Your task to perform on an android device: allow notifications from all sites in the chrome app Image 0: 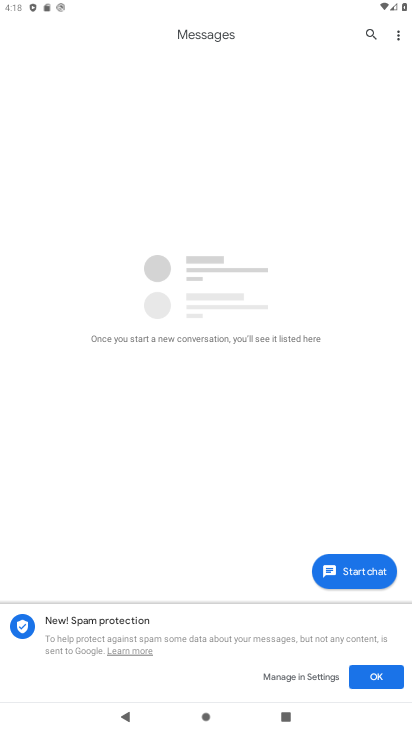
Step 0: press home button
Your task to perform on an android device: allow notifications from all sites in the chrome app Image 1: 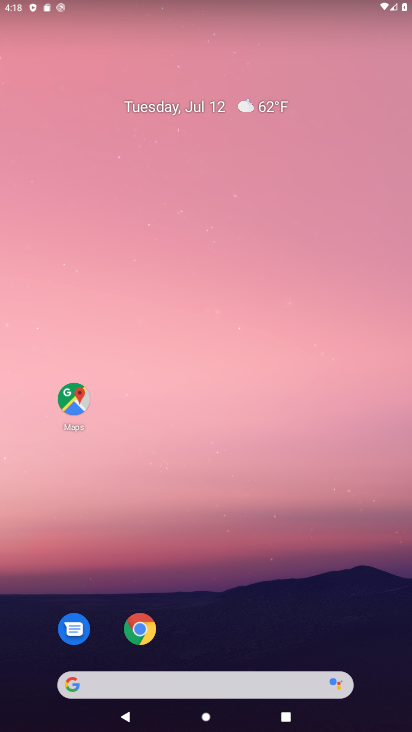
Step 1: drag from (199, 665) to (119, 61)
Your task to perform on an android device: allow notifications from all sites in the chrome app Image 2: 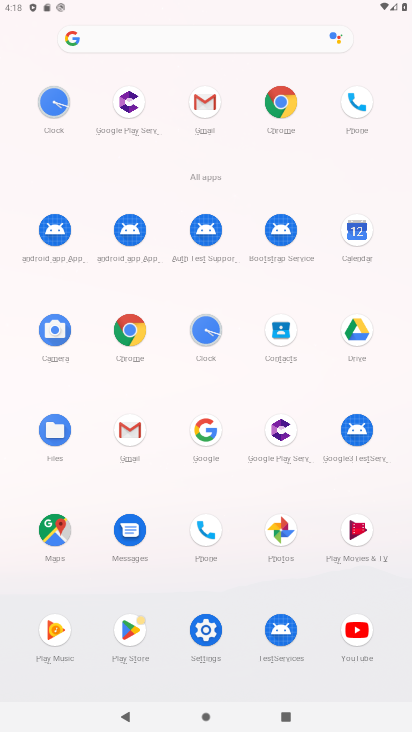
Step 2: click (277, 102)
Your task to perform on an android device: allow notifications from all sites in the chrome app Image 3: 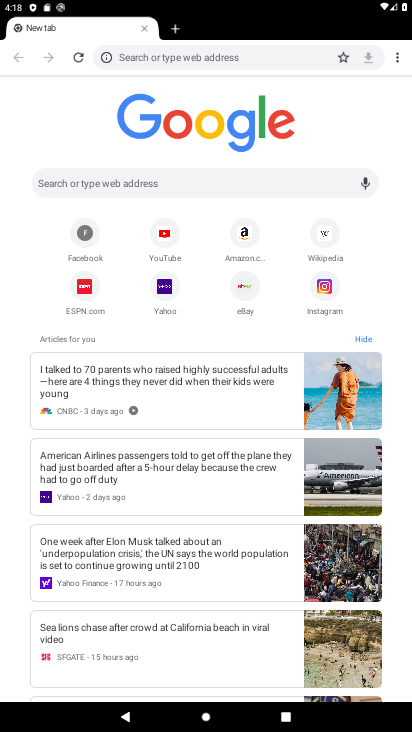
Step 3: drag from (394, 58) to (283, 256)
Your task to perform on an android device: allow notifications from all sites in the chrome app Image 4: 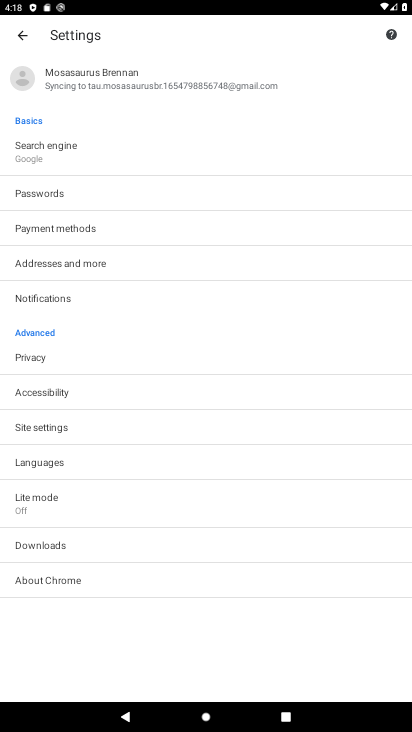
Step 4: click (33, 427)
Your task to perform on an android device: allow notifications from all sites in the chrome app Image 5: 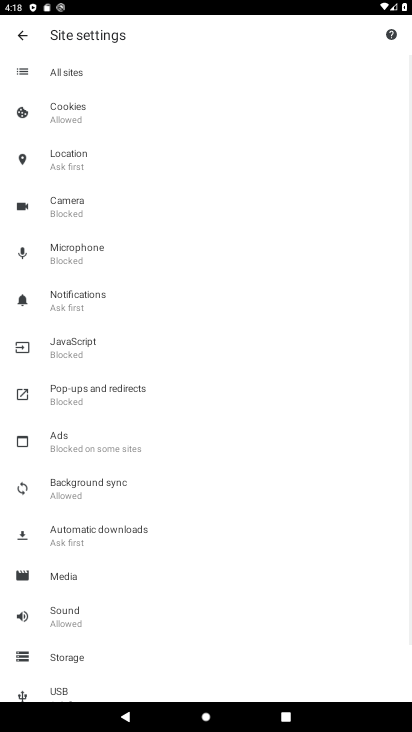
Step 5: click (56, 297)
Your task to perform on an android device: allow notifications from all sites in the chrome app Image 6: 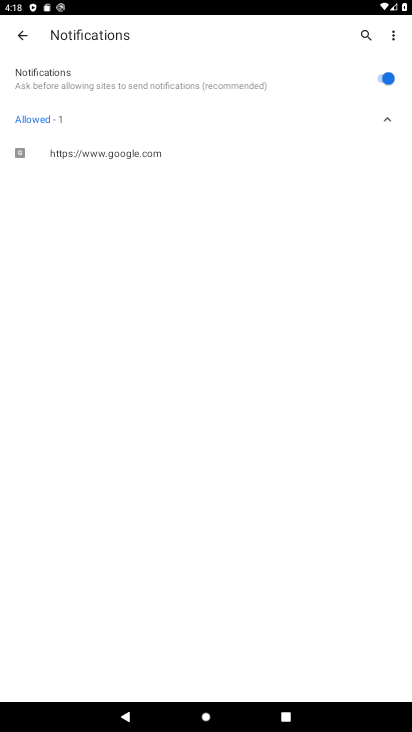
Step 6: task complete